Your task to perform on an android device: read, delete, or share a saved page in the chrome app Image 0: 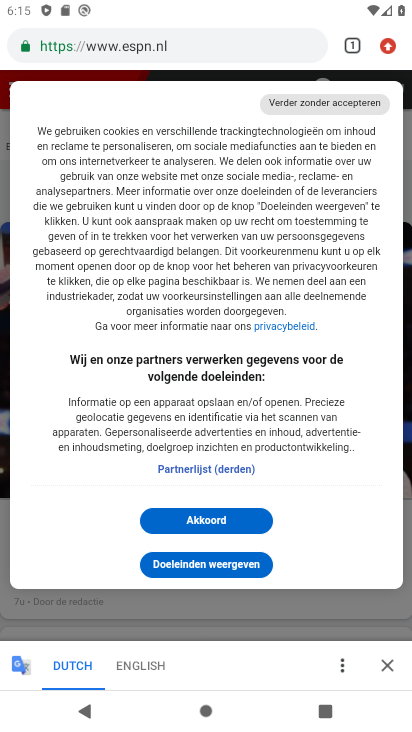
Step 0: press home button
Your task to perform on an android device: read, delete, or share a saved page in the chrome app Image 1: 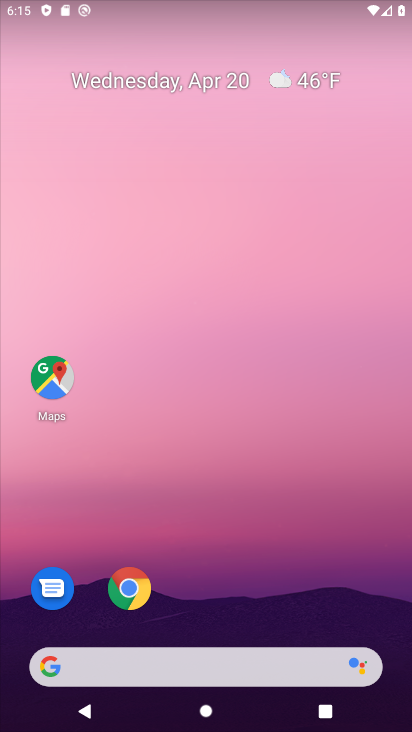
Step 1: click (123, 597)
Your task to perform on an android device: read, delete, or share a saved page in the chrome app Image 2: 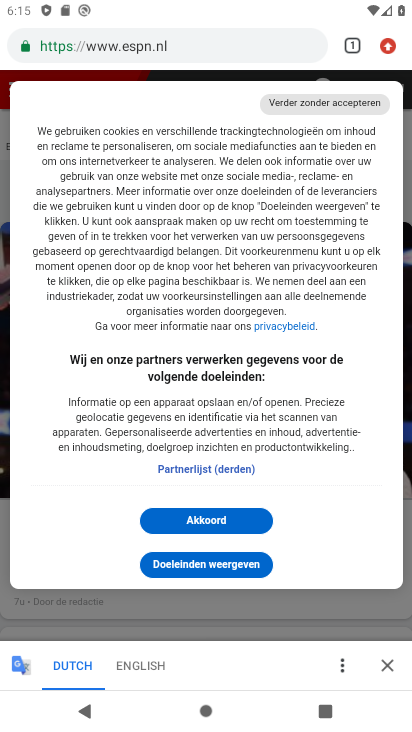
Step 2: drag from (382, 41) to (228, 341)
Your task to perform on an android device: read, delete, or share a saved page in the chrome app Image 3: 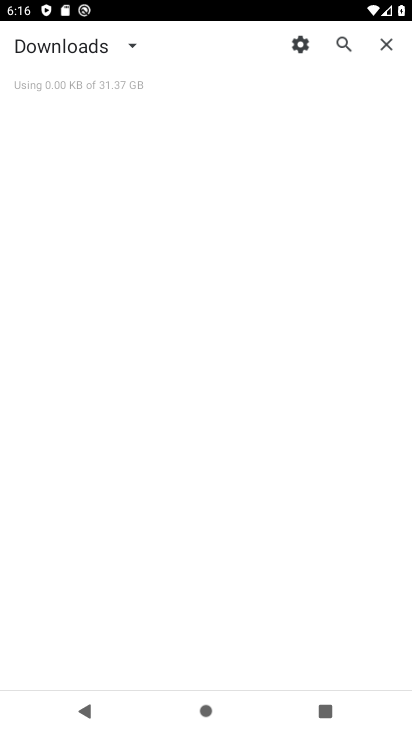
Step 3: click (134, 44)
Your task to perform on an android device: read, delete, or share a saved page in the chrome app Image 4: 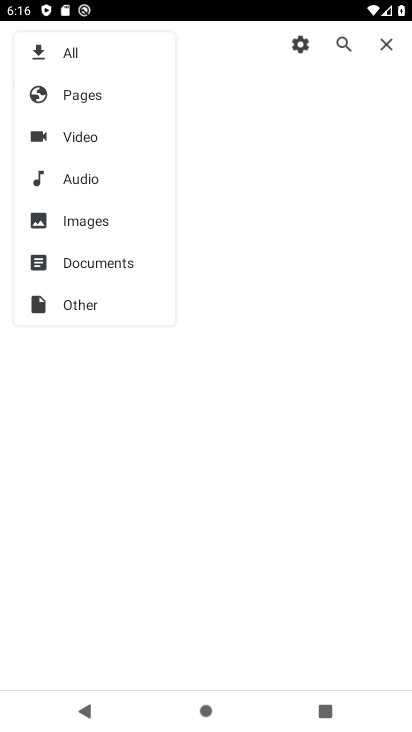
Step 4: click (72, 95)
Your task to perform on an android device: read, delete, or share a saved page in the chrome app Image 5: 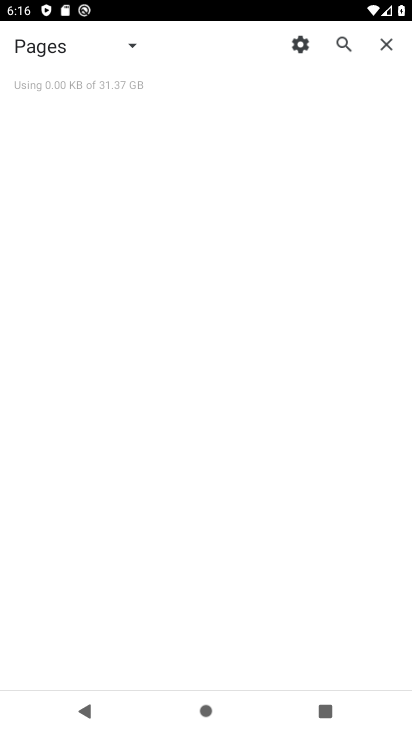
Step 5: click (108, 39)
Your task to perform on an android device: read, delete, or share a saved page in the chrome app Image 6: 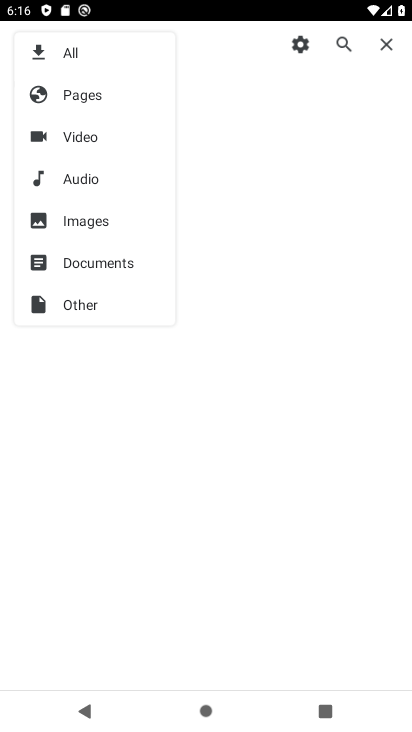
Step 6: task complete